Your task to perform on an android device: turn vacation reply on in the gmail app Image 0: 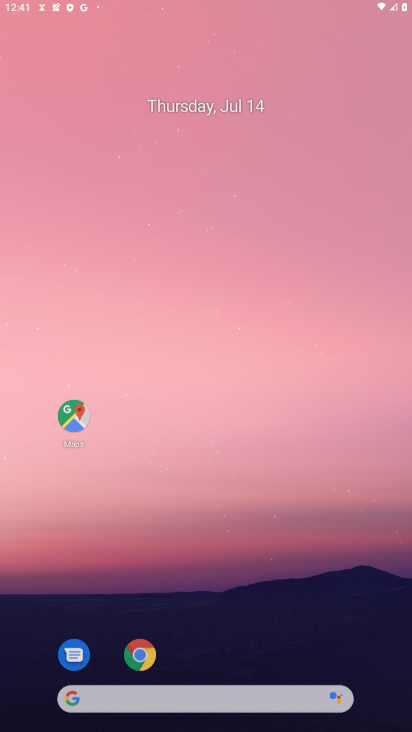
Step 0: click (126, 659)
Your task to perform on an android device: turn vacation reply on in the gmail app Image 1: 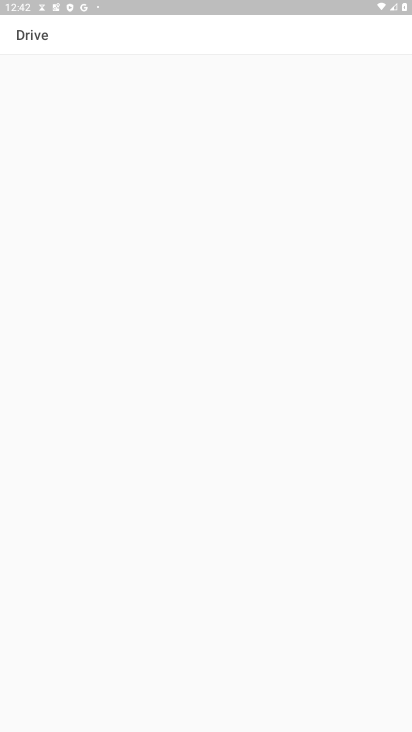
Step 1: press home button
Your task to perform on an android device: turn vacation reply on in the gmail app Image 2: 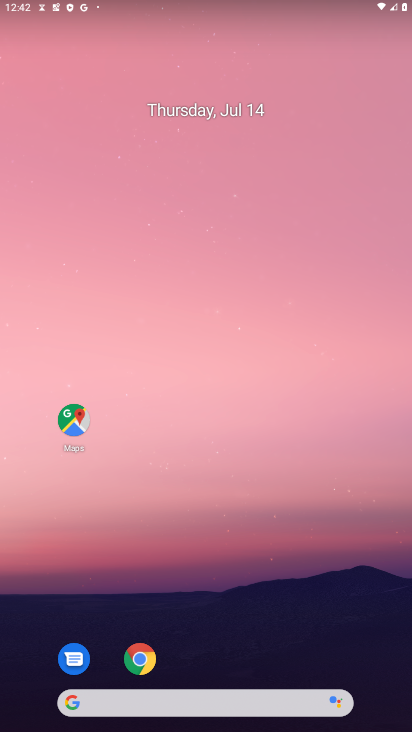
Step 2: drag from (47, 667) to (240, 130)
Your task to perform on an android device: turn vacation reply on in the gmail app Image 3: 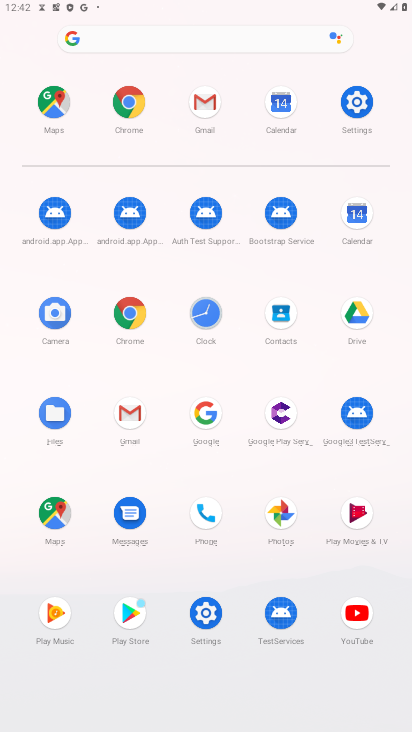
Step 3: click (136, 400)
Your task to perform on an android device: turn vacation reply on in the gmail app Image 4: 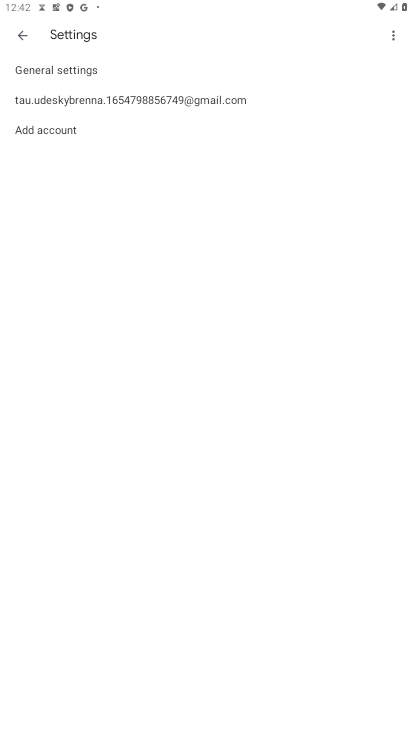
Step 4: click (19, 28)
Your task to perform on an android device: turn vacation reply on in the gmail app Image 5: 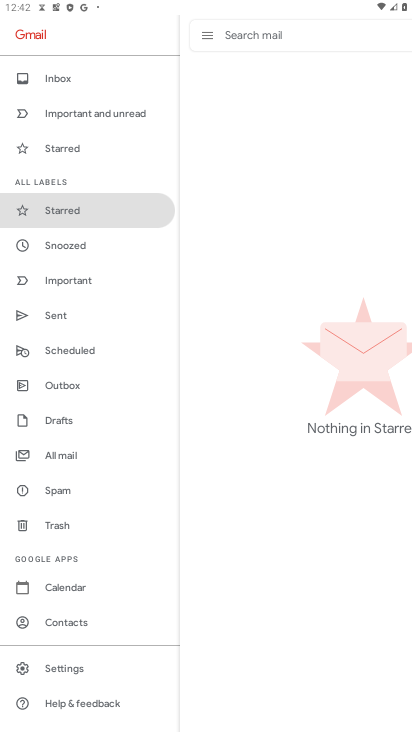
Step 5: task complete